Your task to perform on an android device: star an email in the gmail app Image 0: 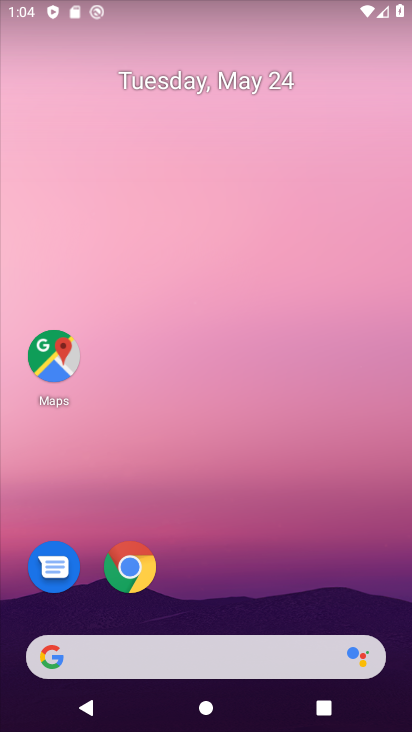
Step 0: drag from (236, 604) to (285, 198)
Your task to perform on an android device: star an email in the gmail app Image 1: 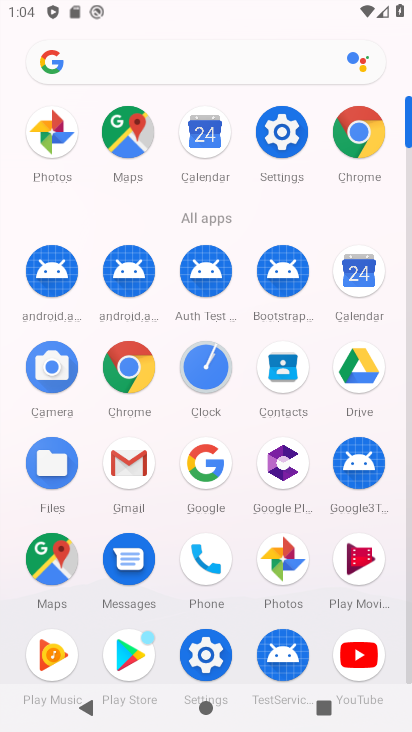
Step 1: click (116, 464)
Your task to perform on an android device: star an email in the gmail app Image 2: 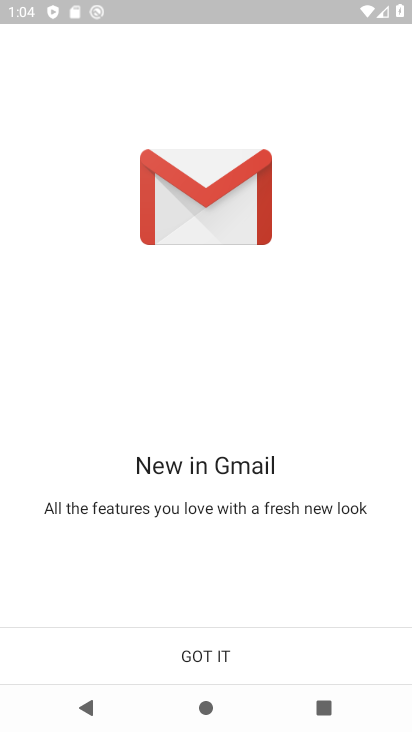
Step 2: click (216, 656)
Your task to perform on an android device: star an email in the gmail app Image 3: 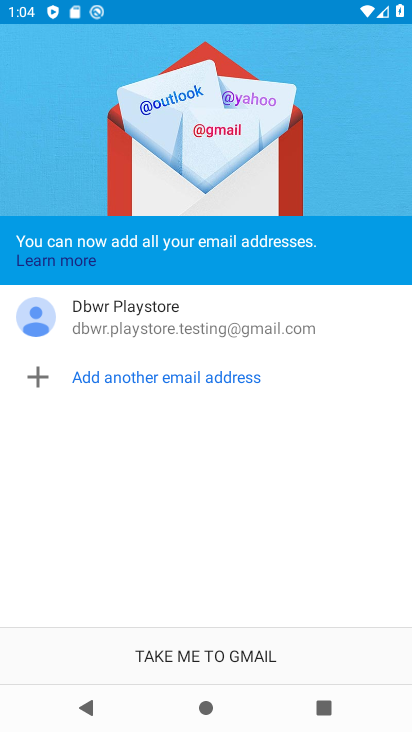
Step 3: click (231, 662)
Your task to perform on an android device: star an email in the gmail app Image 4: 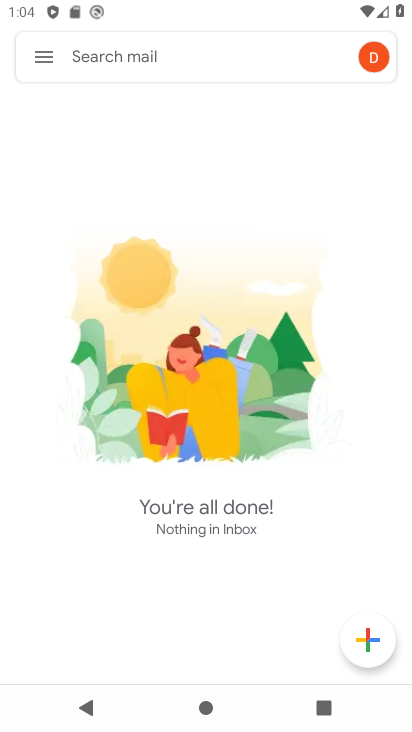
Step 4: click (51, 64)
Your task to perform on an android device: star an email in the gmail app Image 5: 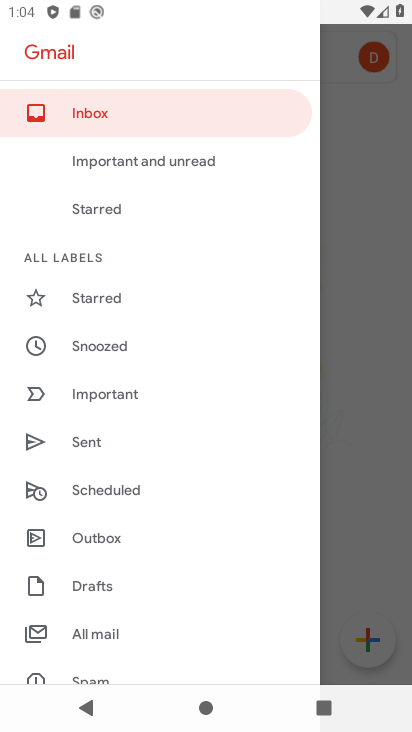
Step 5: drag from (112, 550) to (146, 353)
Your task to perform on an android device: star an email in the gmail app Image 6: 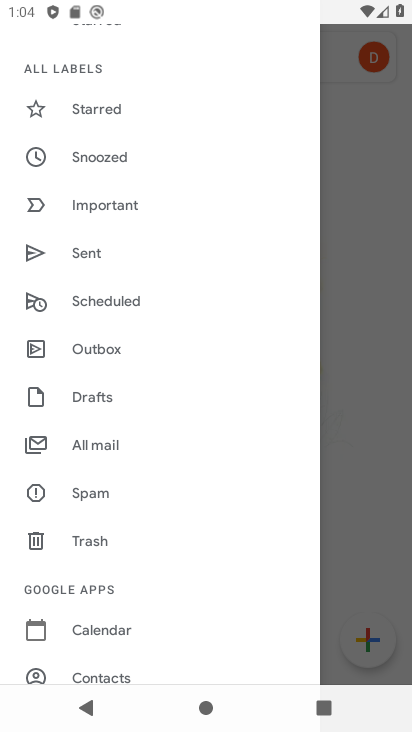
Step 6: click (114, 452)
Your task to perform on an android device: star an email in the gmail app Image 7: 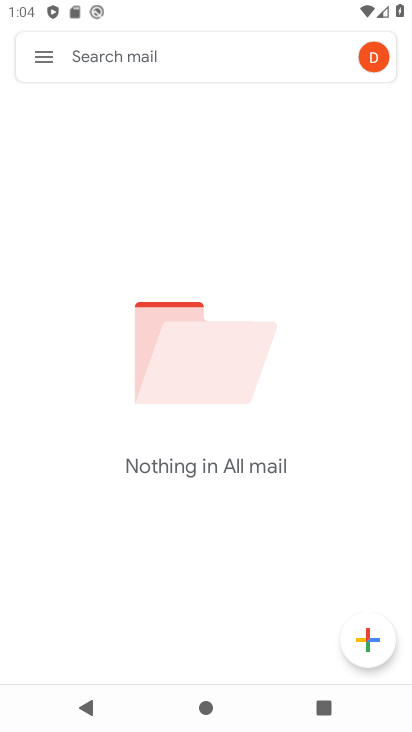
Step 7: task complete